Your task to perform on an android device: turn on sleep mode Image 0: 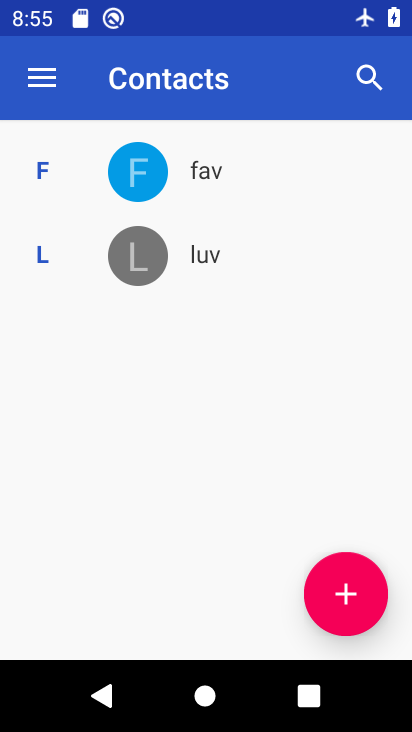
Step 0: press home button
Your task to perform on an android device: turn on sleep mode Image 1: 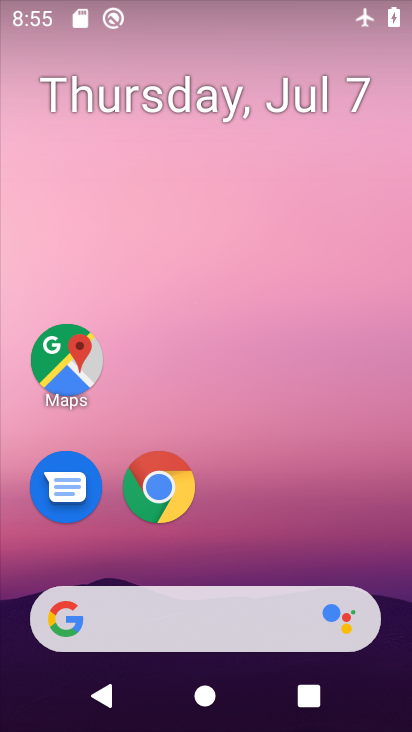
Step 1: drag from (371, 545) to (357, 160)
Your task to perform on an android device: turn on sleep mode Image 2: 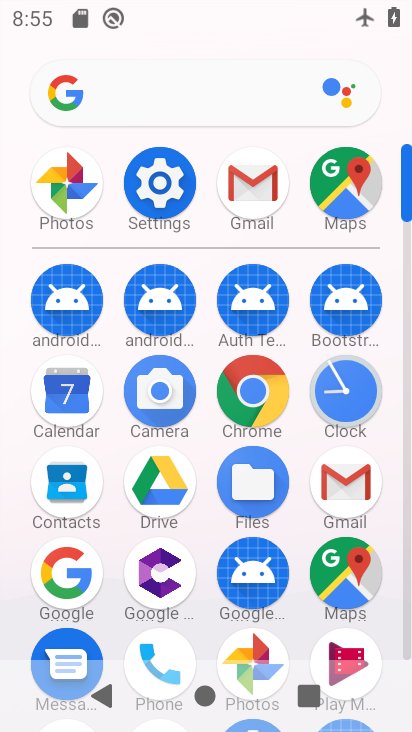
Step 2: click (162, 187)
Your task to perform on an android device: turn on sleep mode Image 3: 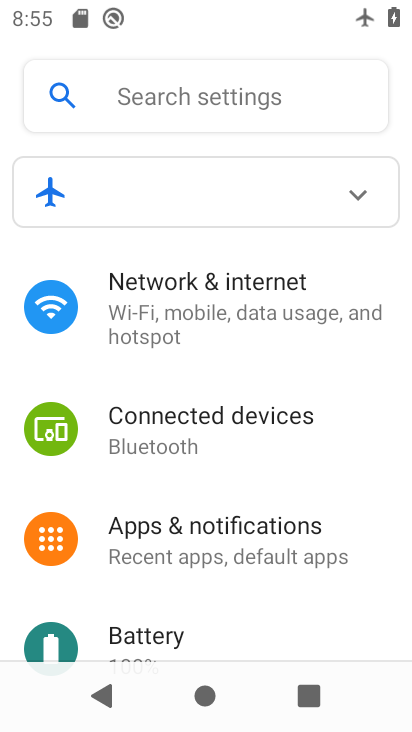
Step 3: drag from (309, 471) to (315, 388)
Your task to perform on an android device: turn on sleep mode Image 4: 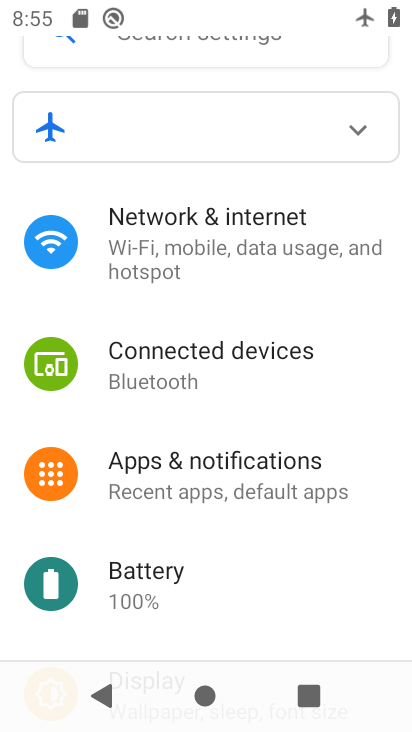
Step 4: drag from (315, 539) to (328, 431)
Your task to perform on an android device: turn on sleep mode Image 5: 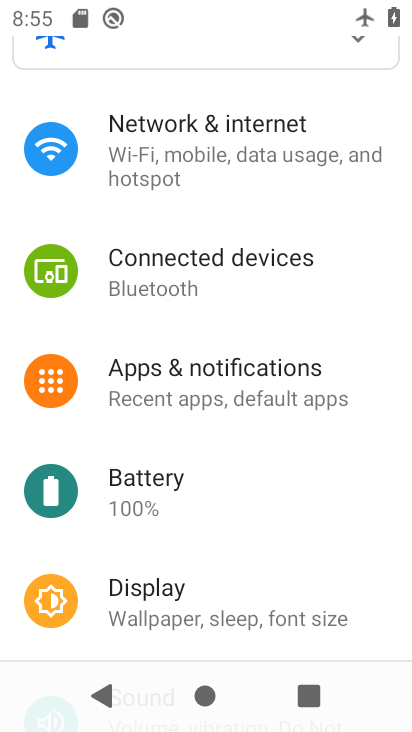
Step 5: drag from (325, 519) to (331, 445)
Your task to perform on an android device: turn on sleep mode Image 6: 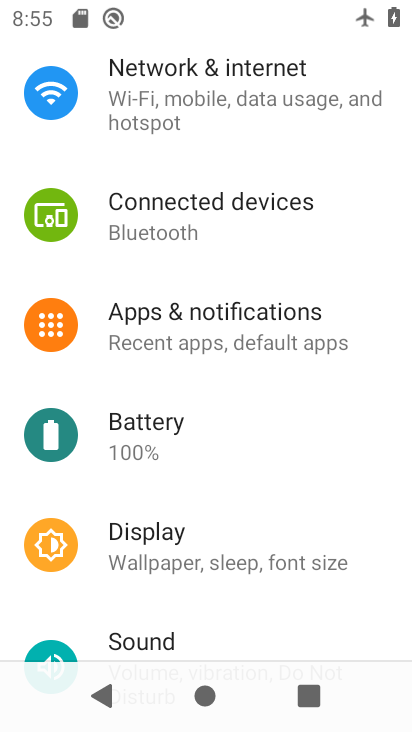
Step 6: drag from (370, 554) to (368, 433)
Your task to perform on an android device: turn on sleep mode Image 7: 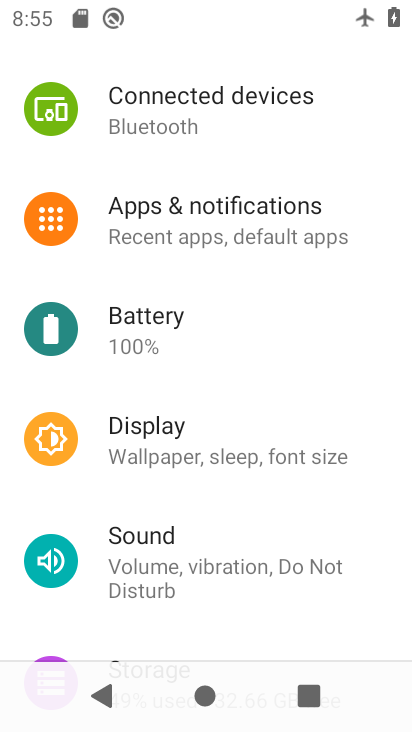
Step 7: drag from (364, 550) to (374, 468)
Your task to perform on an android device: turn on sleep mode Image 8: 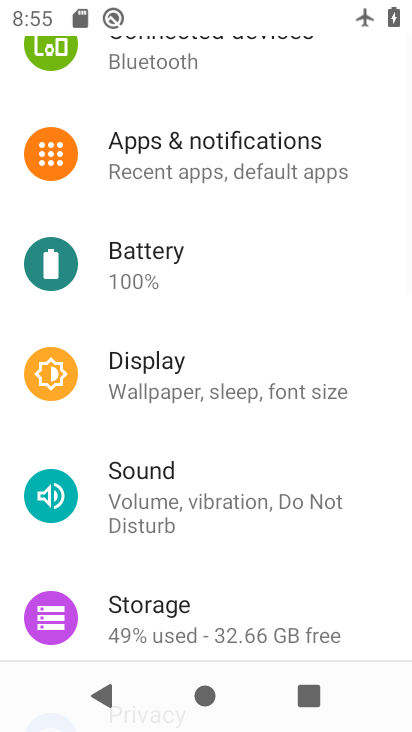
Step 8: drag from (364, 557) to (369, 426)
Your task to perform on an android device: turn on sleep mode Image 9: 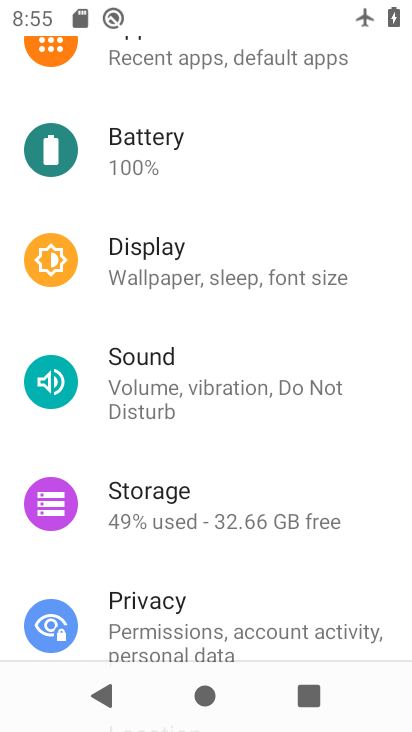
Step 9: drag from (354, 554) to (362, 453)
Your task to perform on an android device: turn on sleep mode Image 10: 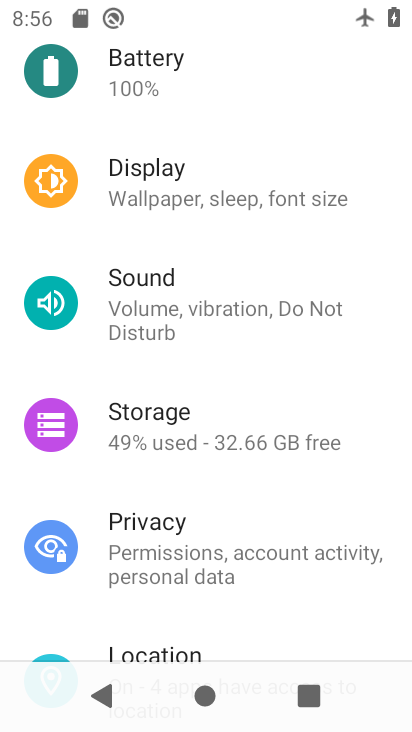
Step 10: click (317, 219)
Your task to perform on an android device: turn on sleep mode Image 11: 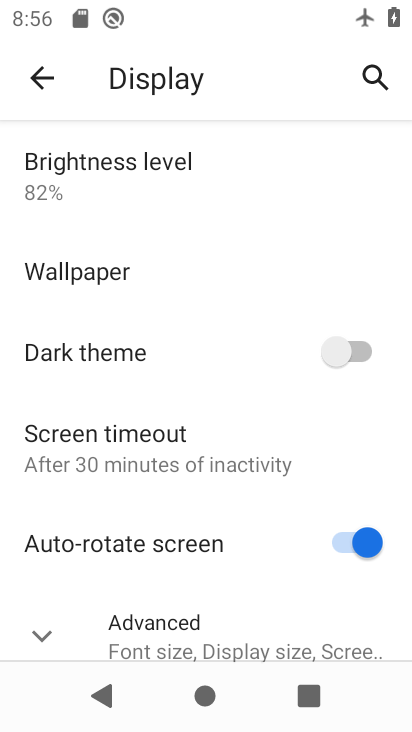
Step 11: drag from (283, 533) to (303, 397)
Your task to perform on an android device: turn on sleep mode Image 12: 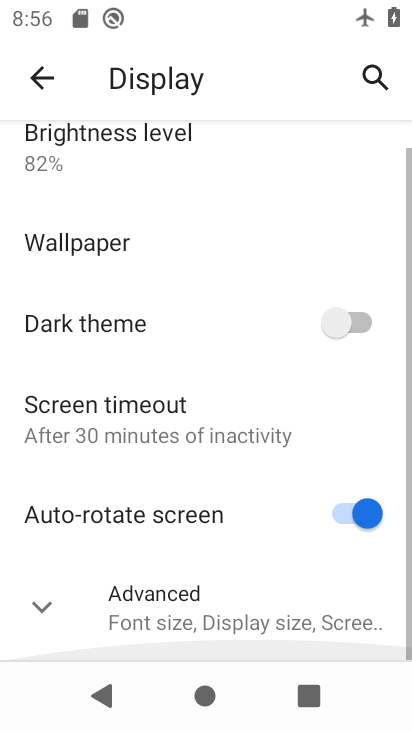
Step 12: click (273, 610)
Your task to perform on an android device: turn on sleep mode Image 13: 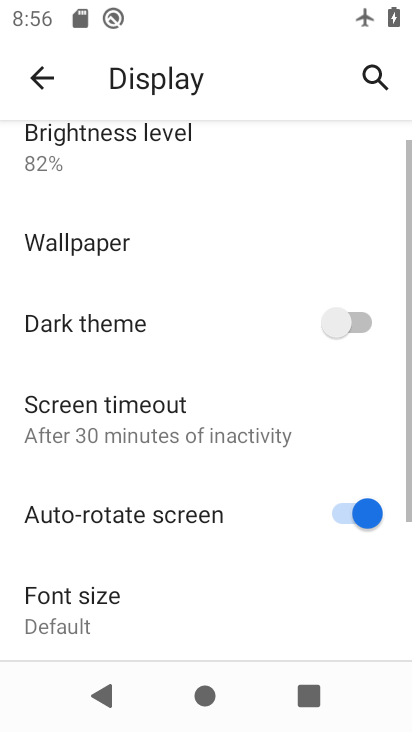
Step 13: task complete